Your task to perform on an android device: star an email in the gmail app Image 0: 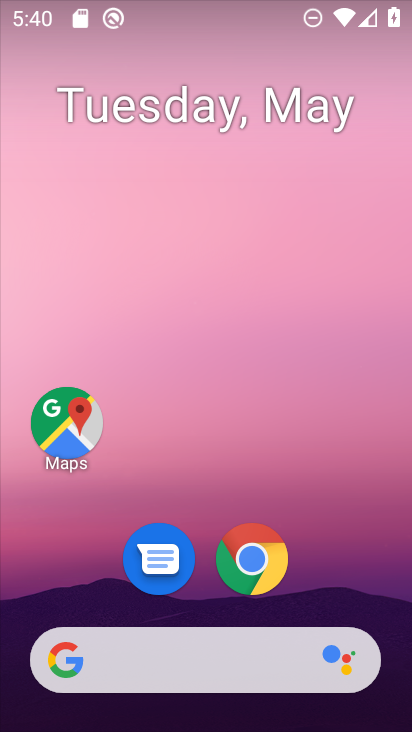
Step 0: drag from (303, 572) to (312, 128)
Your task to perform on an android device: star an email in the gmail app Image 1: 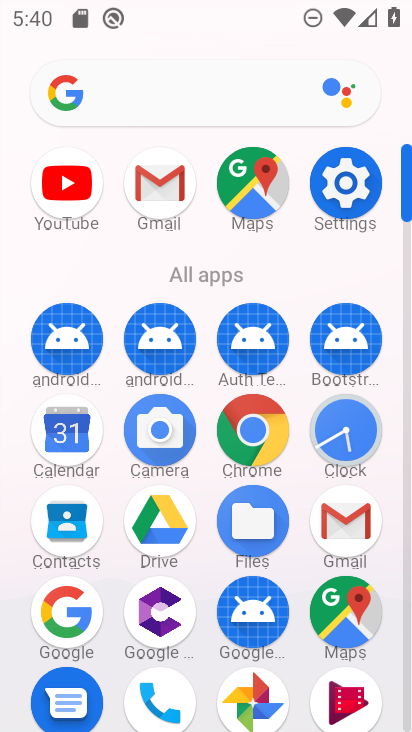
Step 1: click (352, 503)
Your task to perform on an android device: star an email in the gmail app Image 2: 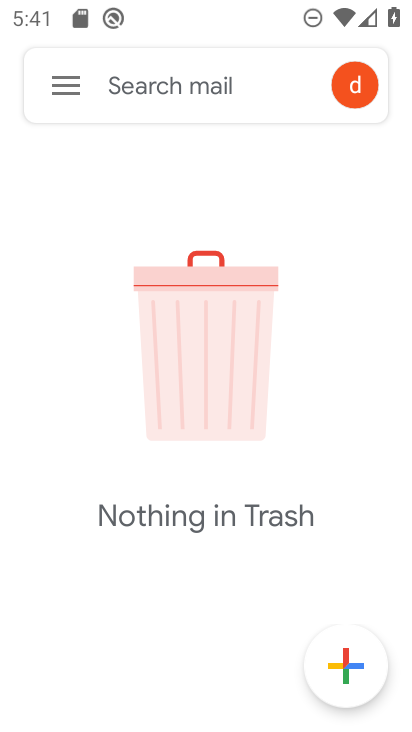
Step 2: press home button
Your task to perform on an android device: star an email in the gmail app Image 3: 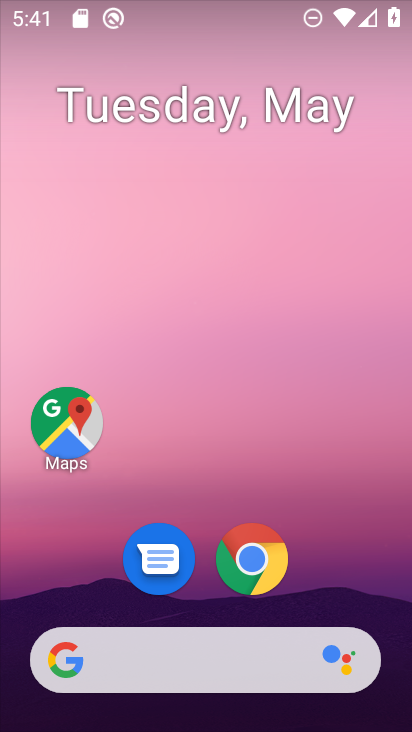
Step 3: drag from (269, 602) to (265, 207)
Your task to perform on an android device: star an email in the gmail app Image 4: 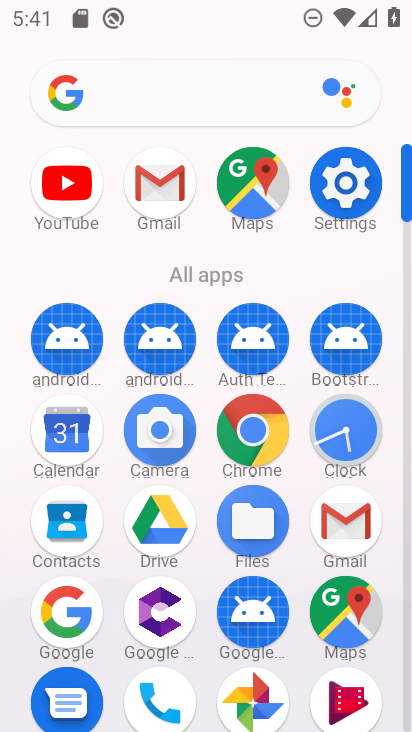
Step 4: click (167, 203)
Your task to perform on an android device: star an email in the gmail app Image 5: 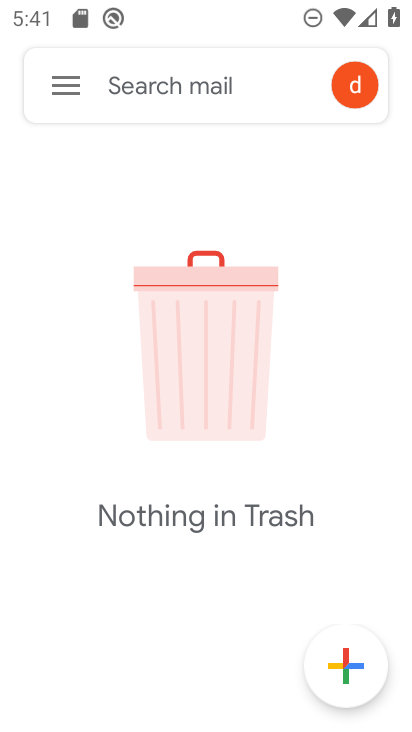
Step 5: click (65, 87)
Your task to perform on an android device: star an email in the gmail app Image 6: 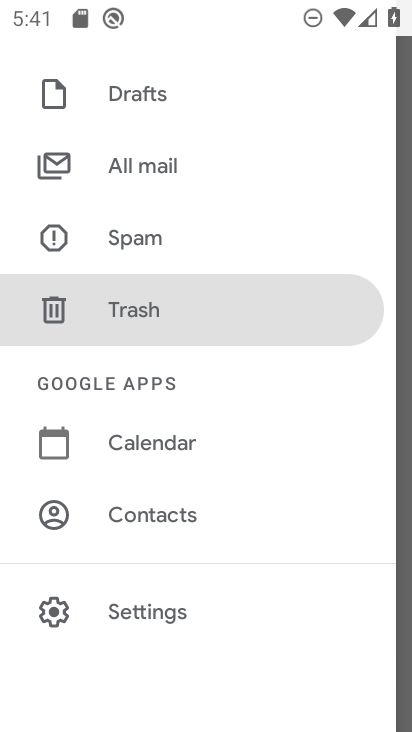
Step 6: click (151, 179)
Your task to perform on an android device: star an email in the gmail app Image 7: 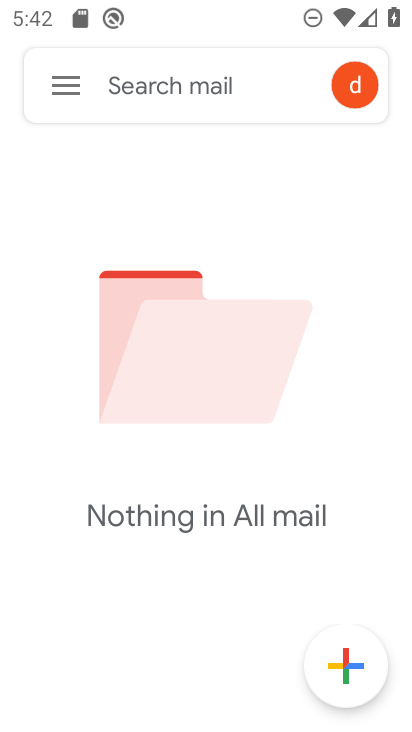
Step 7: task complete